Your task to perform on an android device: show emergency info Image 0: 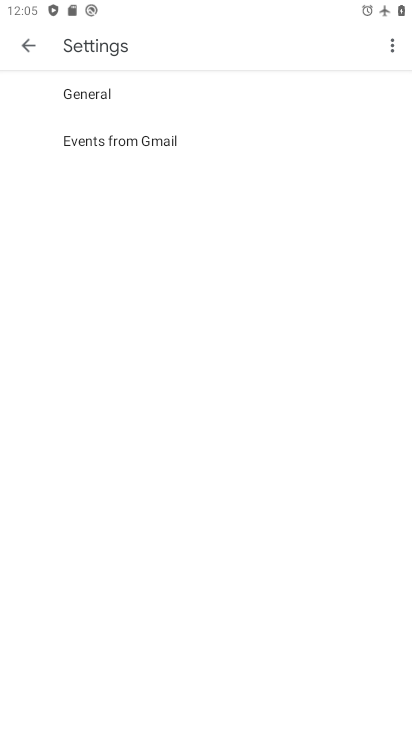
Step 0: press home button
Your task to perform on an android device: show emergency info Image 1: 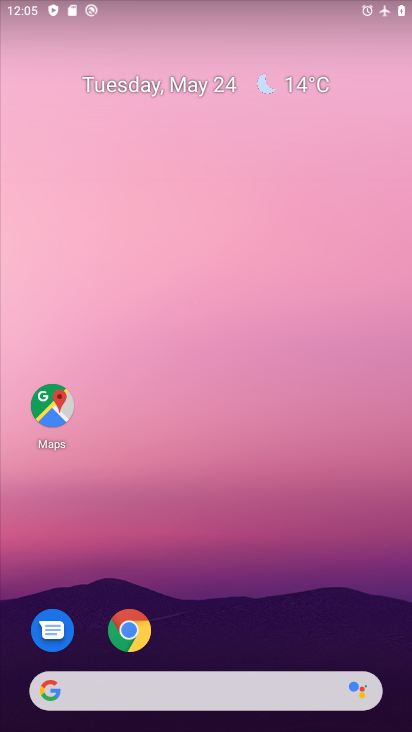
Step 1: drag from (370, 616) to (352, 185)
Your task to perform on an android device: show emergency info Image 2: 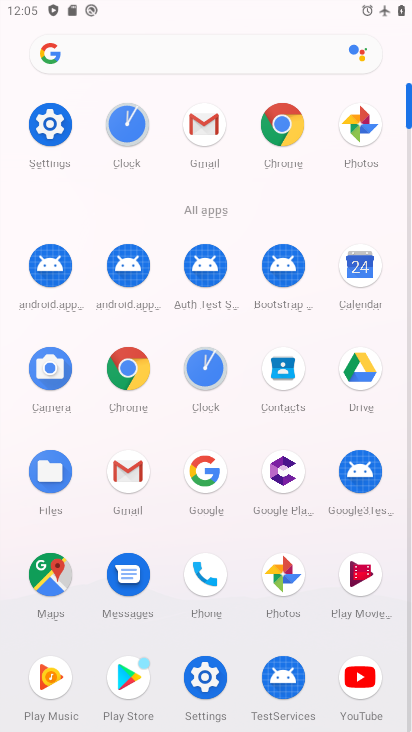
Step 2: click (201, 687)
Your task to perform on an android device: show emergency info Image 3: 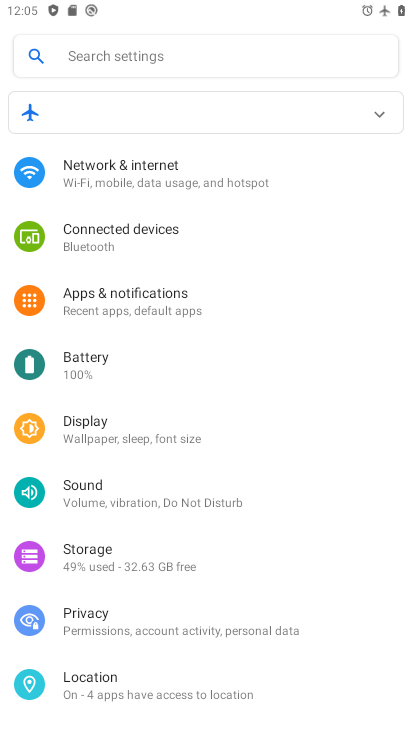
Step 3: drag from (283, 651) to (310, 272)
Your task to perform on an android device: show emergency info Image 4: 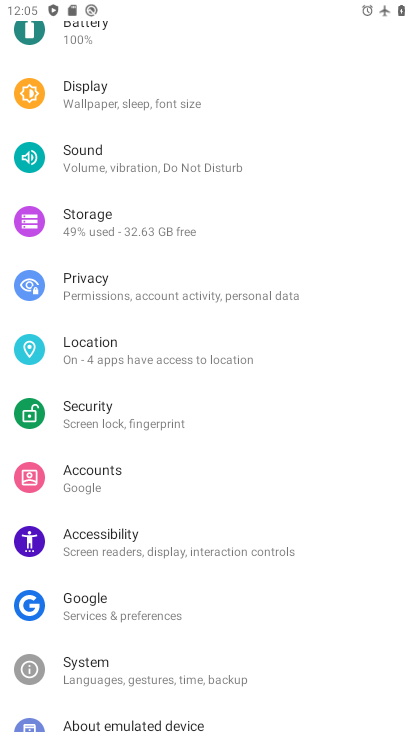
Step 4: drag from (270, 626) to (259, 288)
Your task to perform on an android device: show emergency info Image 5: 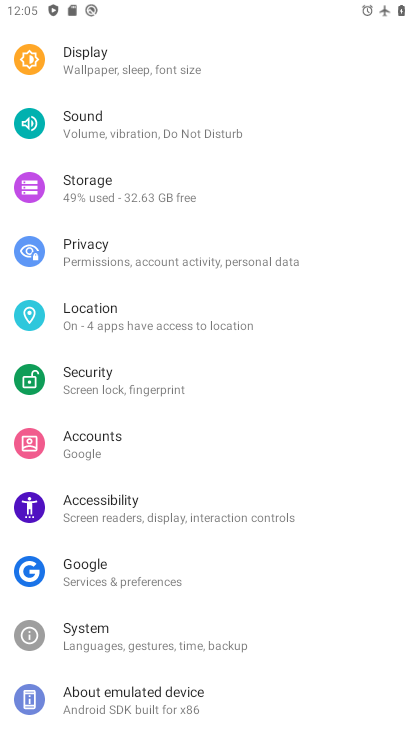
Step 5: click (175, 713)
Your task to perform on an android device: show emergency info Image 6: 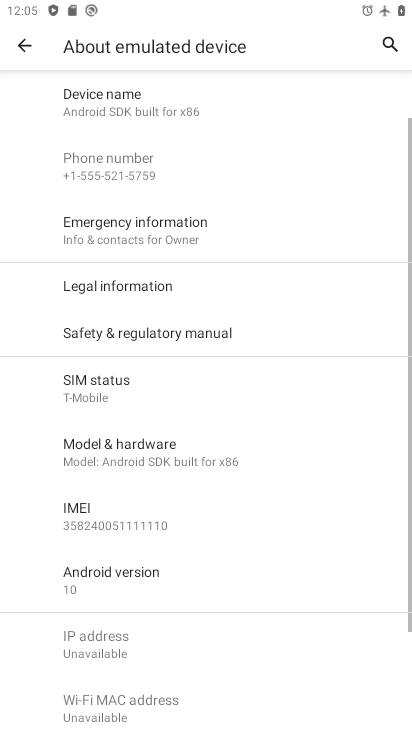
Step 6: click (210, 240)
Your task to perform on an android device: show emergency info Image 7: 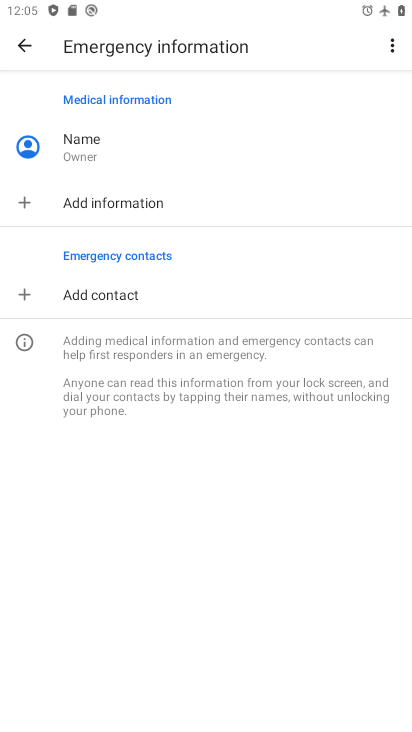
Step 7: task complete